Your task to perform on an android device: change the clock display to analog Image 0: 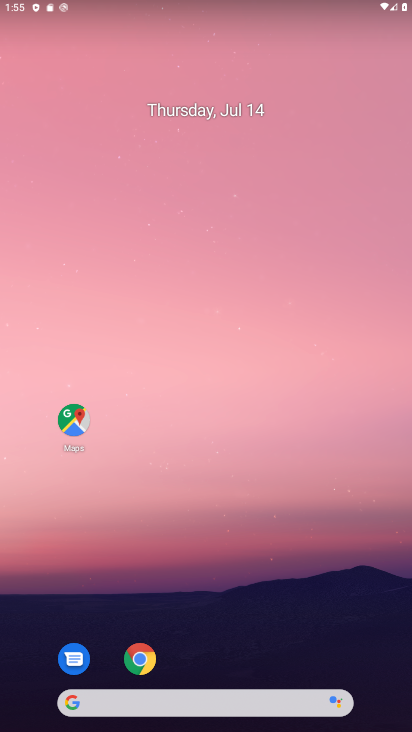
Step 0: press home button
Your task to perform on an android device: change the clock display to analog Image 1: 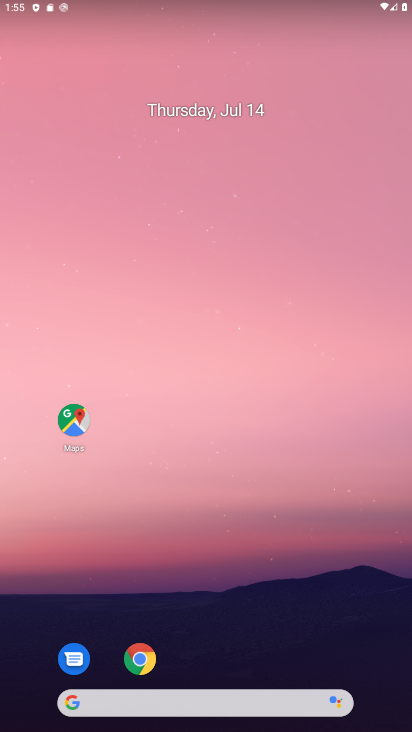
Step 1: drag from (233, 724) to (245, 67)
Your task to perform on an android device: change the clock display to analog Image 2: 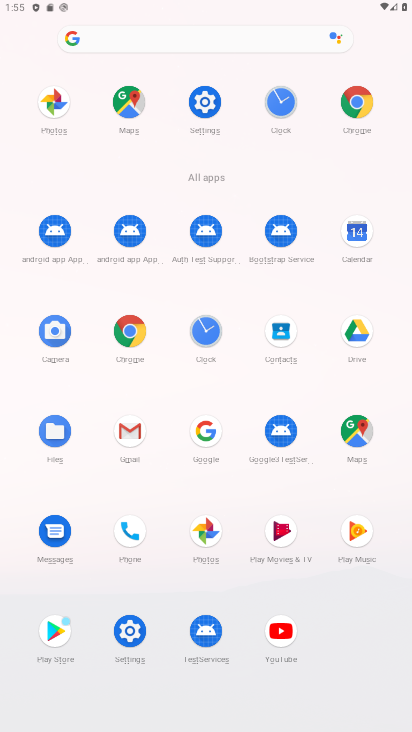
Step 2: click (204, 110)
Your task to perform on an android device: change the clock display to analog Image 3: 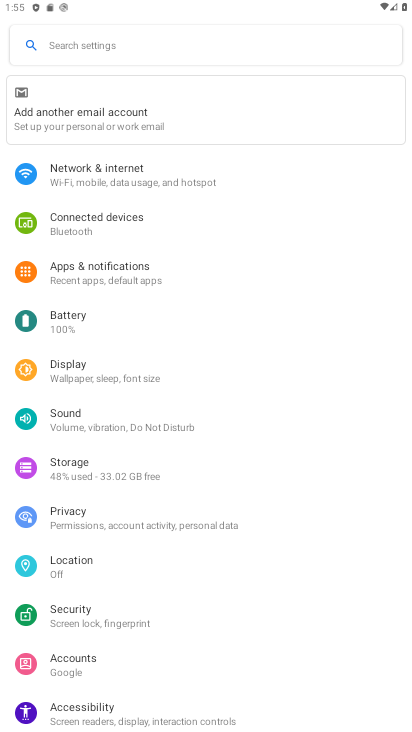
Step 3: press home button
Your task to perform on an android device: change the clock display to analog Image 4: 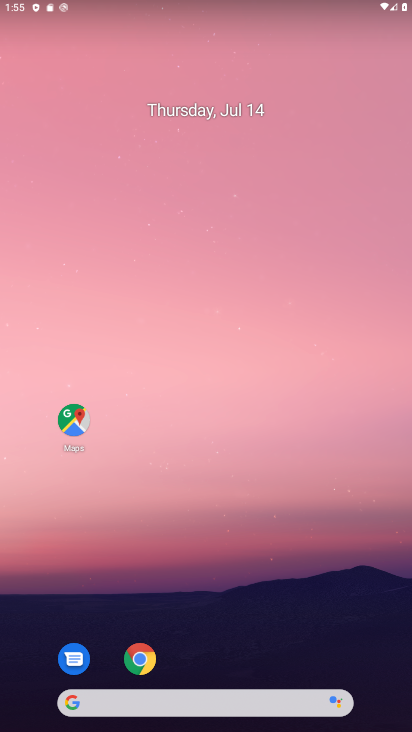
Step 4: drag from (211, 709) to (214, 6)
Your task to perform on an android device: change the clock display to analog Image 5: 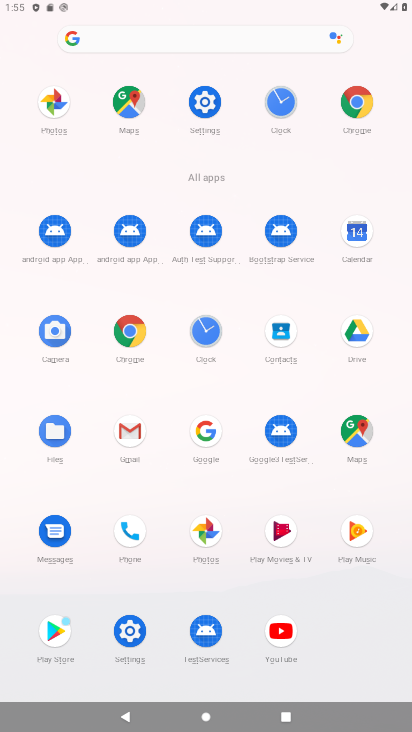
Step 5: click (196, 331)
Your task to perform on an android device: change the clock display to analog Image 6: 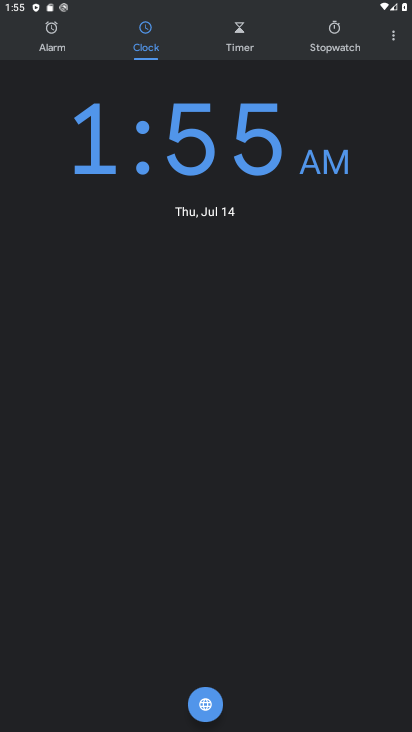
Step 6: click (387, 42)
Your task to perform on an android device: change the clock display to analog Image 7: 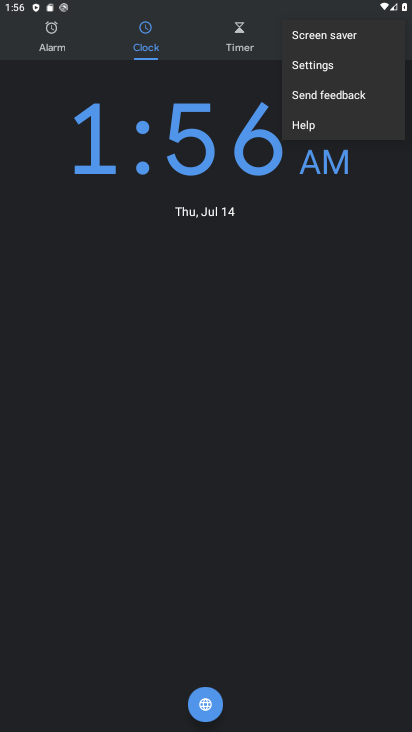
Step 7: click (329, 72)
Your task to perform on an android device: change the clock display to analog Image 8: 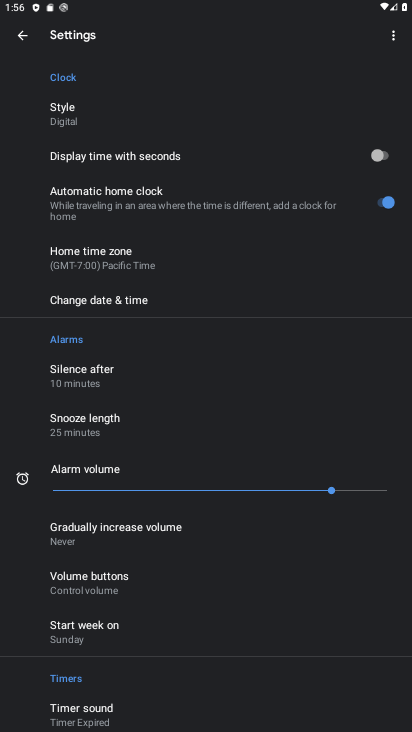
Step 8: click (111, 125)
Your task to perform on an android device: change the clock display to analog Image 9: 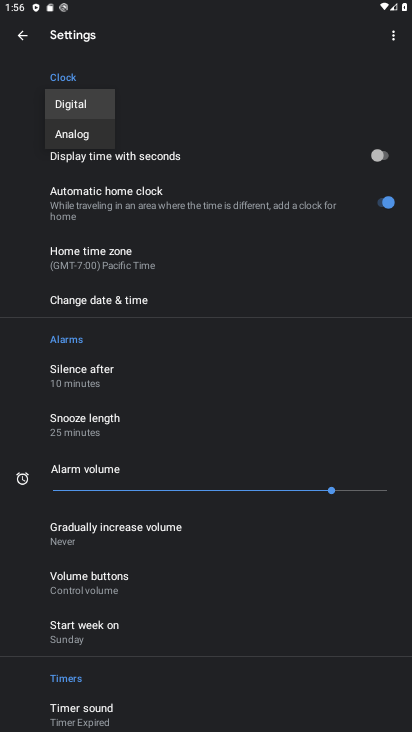
Step 9: click (90, 133)
Your task to perform on an android device: change the clock display to analog Image 10: 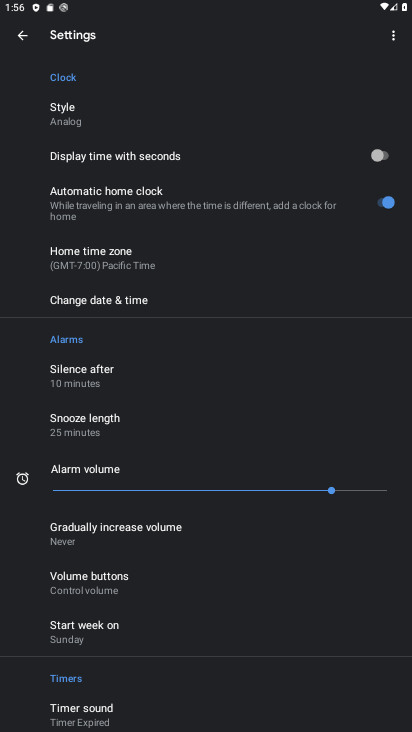
Step 10: task complete